Your task to perform on an android device: toggle location history Image 0: 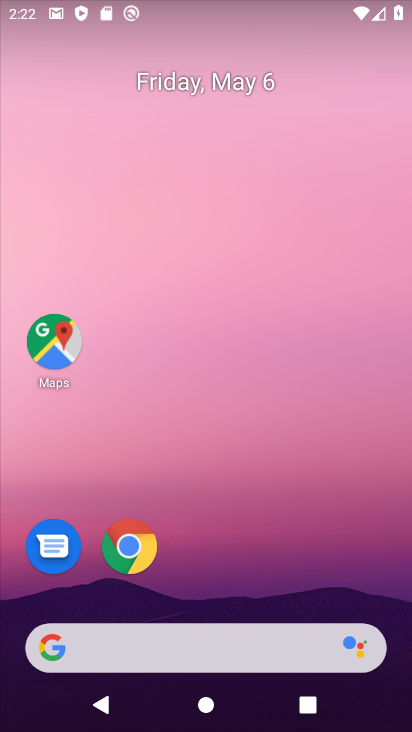
Step 0: drag from (269, 543) to (284, 175)
Your task to perform on an android device: toggle location history Image 1: 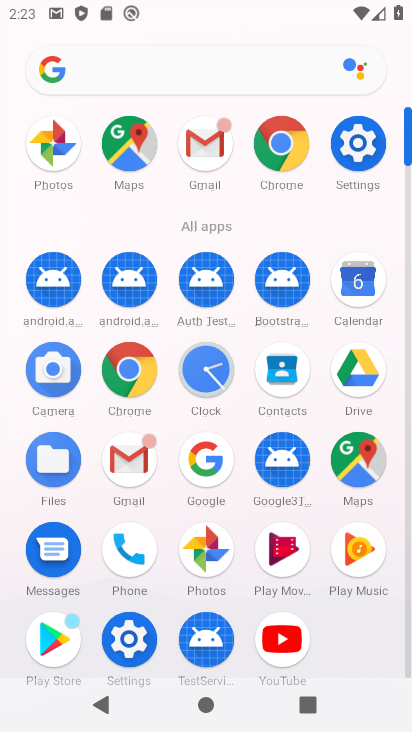
Step 1: click (350, 151)
Your task to perform on an android device: toggle location history Image 2: 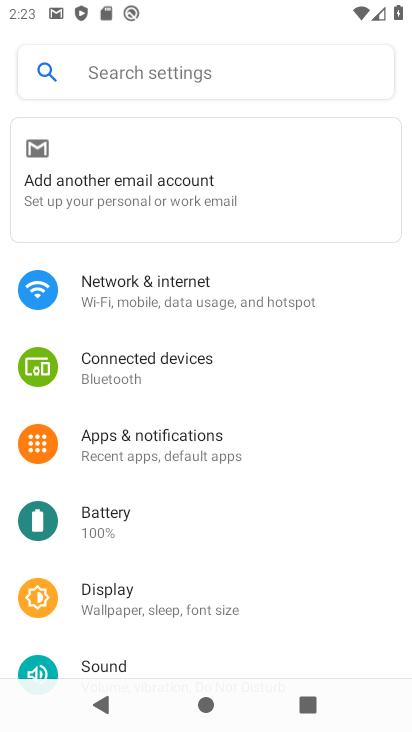
Step 2: drag from (234, 603) to (262, 183)
Your task to perform on an android device: toggle location history Image 3: 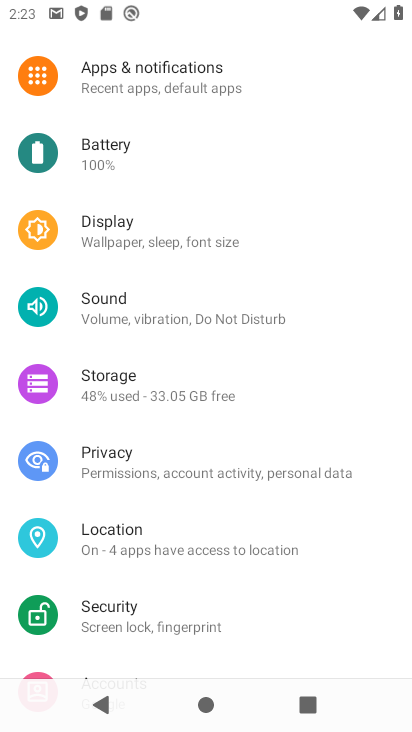
Step 3: click (199, 538)
Your task to perform on an android device: toggle location history Image 4: 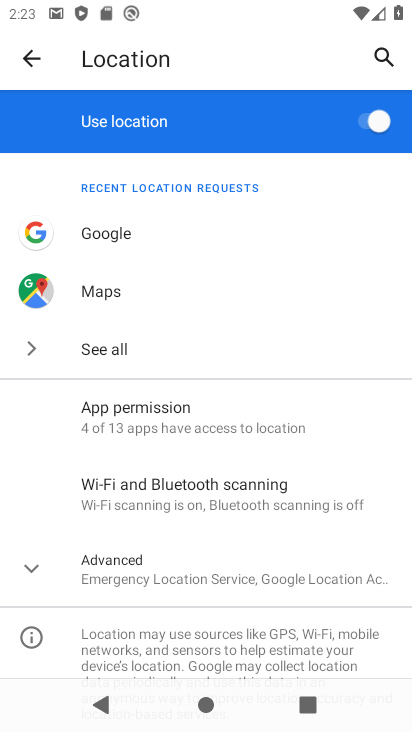
Step 4: click (215, 575)
Your task to perform on an android device: toggle location history Image 5: 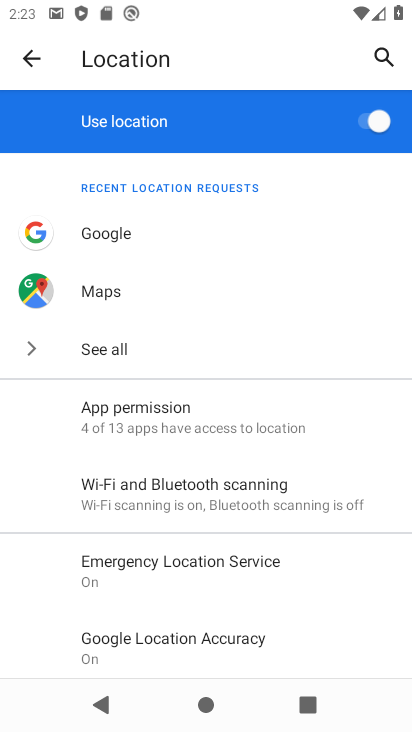
Step 5: drag from (225, 612) to (225, 352)
Your task to perform on an android device: toggle location history Image 6: 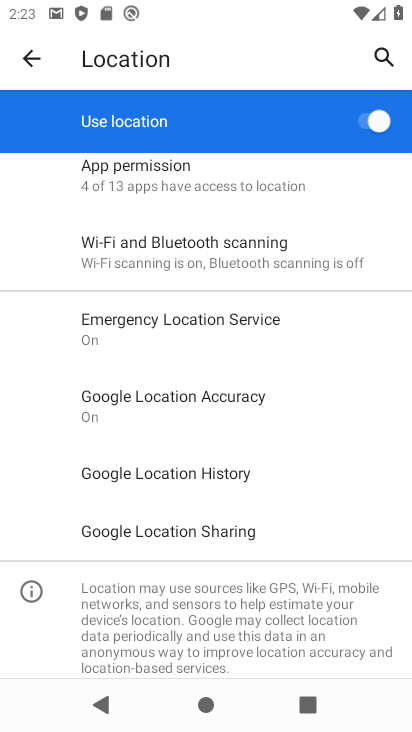
Step 6: click (213, 471)
Your task to perform on an android device: toggle location history Image 7: 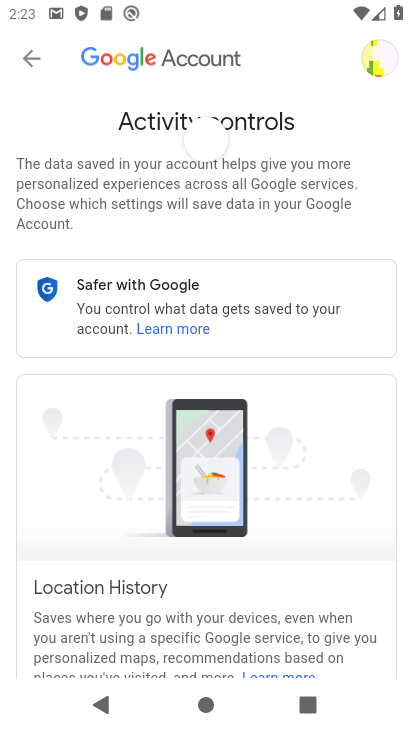
Step 7: drag from (311, 468) to (311, 243)
Your task to perform on an android device: toggle location history Image 8: 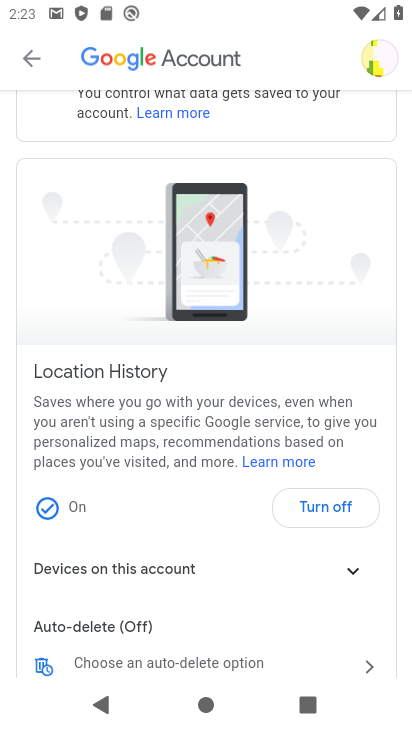
Step 8: click (331, 503)
Your task to perform on an android device: toggle location history Image 9: 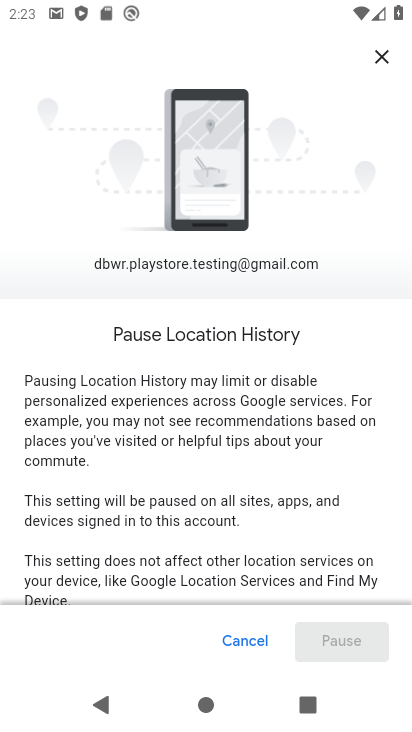
Step 9: drag from (314, 582) to (299, 186)
Your task to perform on an android device: toggle location history Image 10: 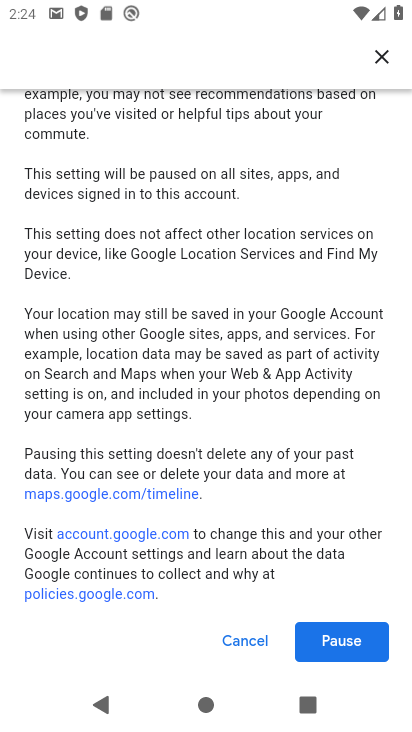
Step 10: click (342, 650)
Your task to perform on an android device: toggle location history Image 11: 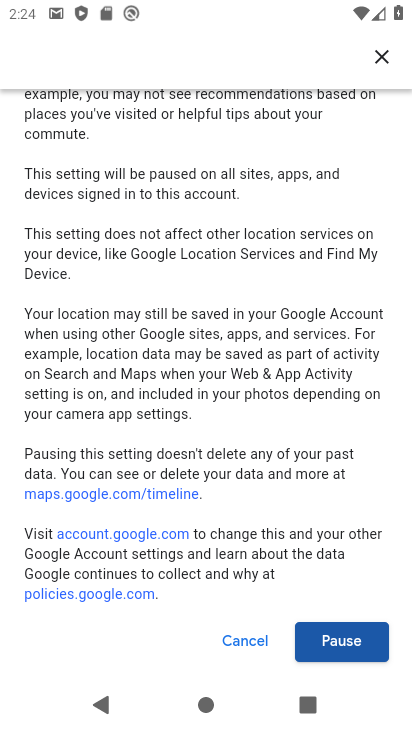
Step 11: drag from (331, 500) to (324, 250)
Your task to perform on an android device: toggle location history Image 12: 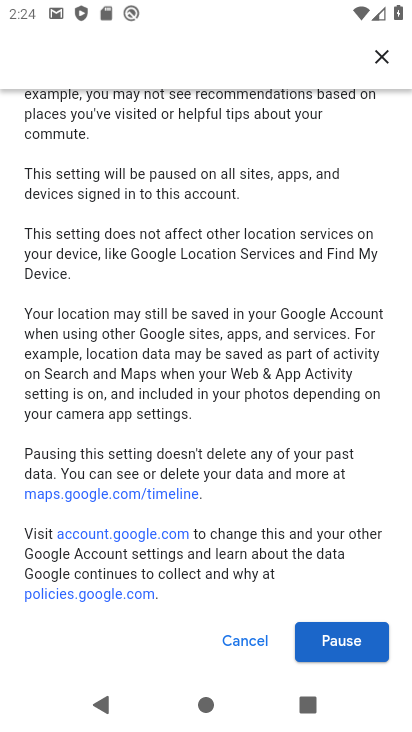
Step 12: click (357, 645)
Your task to perform on an android device: toggle location history Image 13: 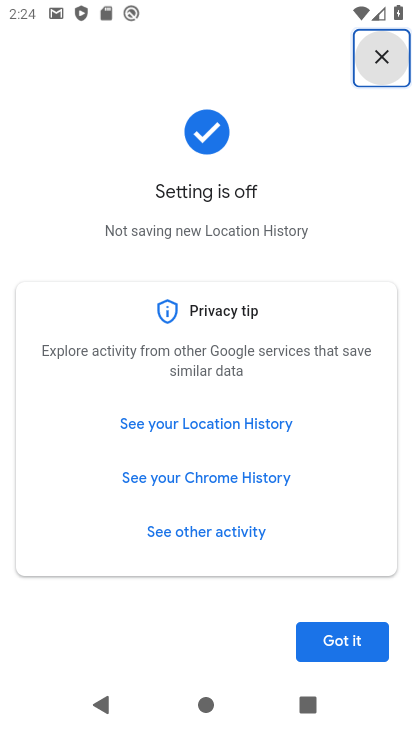
Step 13: click (341, 649)
Your task to perform on an android device: toggle location history Image 14: 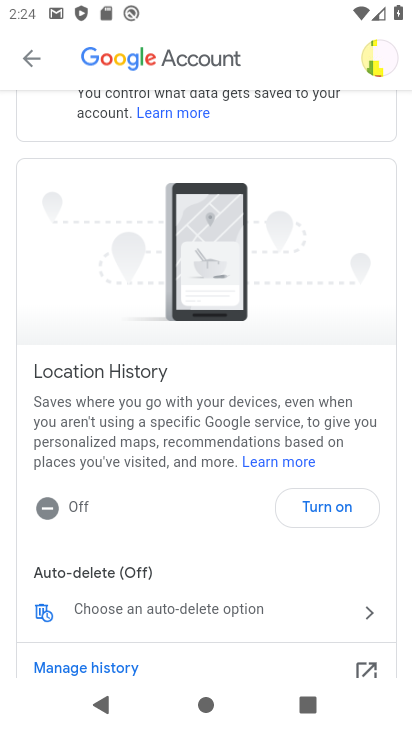
Step 14: task complete